Your task to perform on an android device: Go to internet settings Image 0: 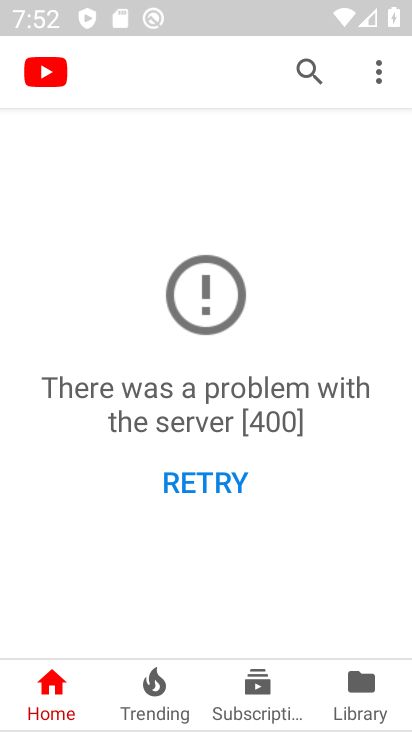
Step 0: press back button
Your task to perform on an android device: Go to internet settings Image 1: 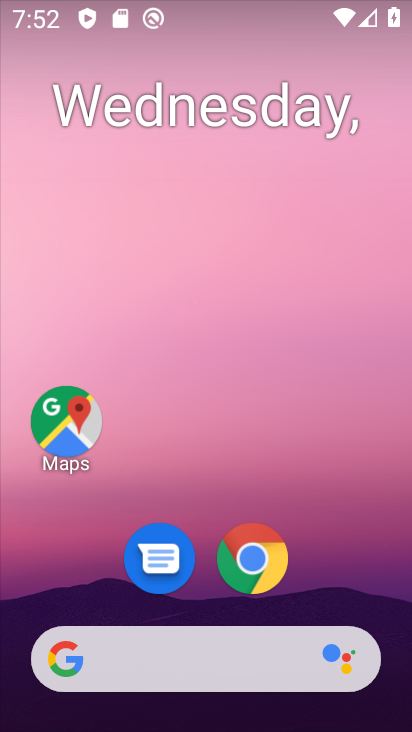
Step 1: drag from (231, 685) to (280, 219)
Your task to perform on an android device: Go to internet settings Image 2: 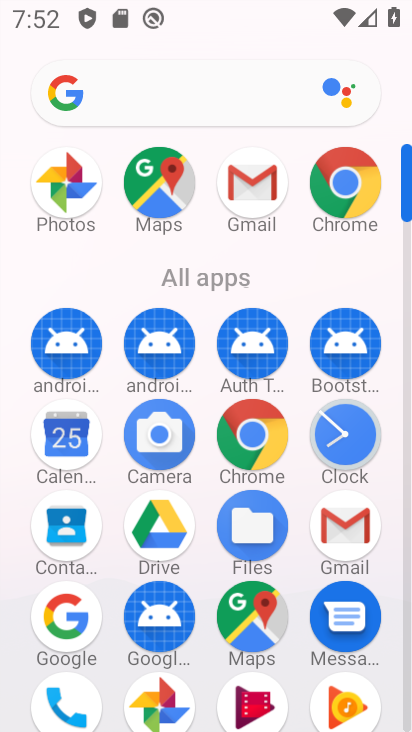
Step 2: drag from (173, 632) to (299, 121)
Your task to perform on an android device: Go to internet settings Image 3: 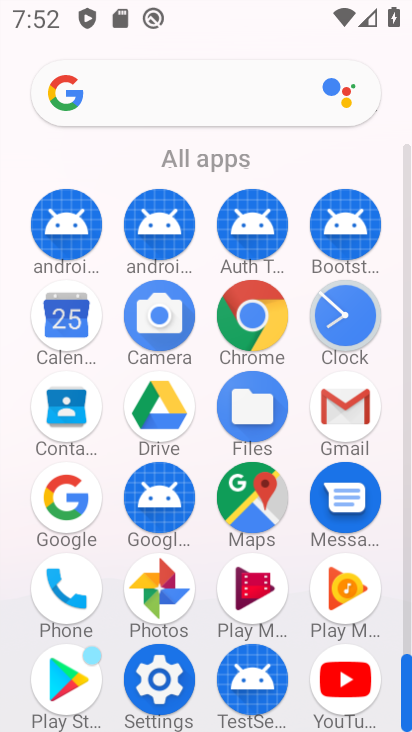
Step 3: click (172, 669)
Your task to perform on an android device: Go to internet settings Image 4: 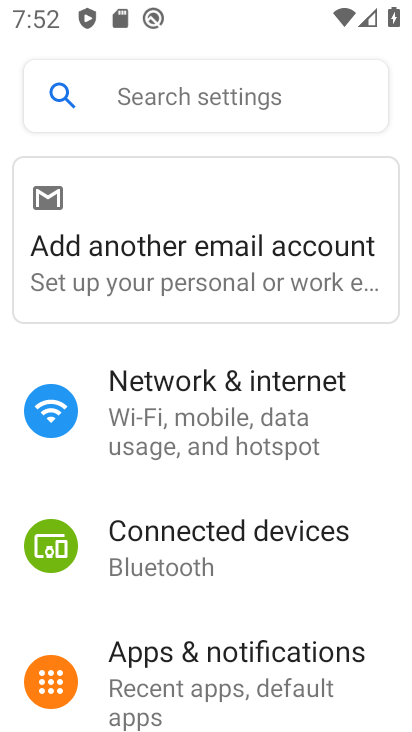
Step 4: click (277, 417)
Your task to perform on an android device: Go to internet settings Image 5: 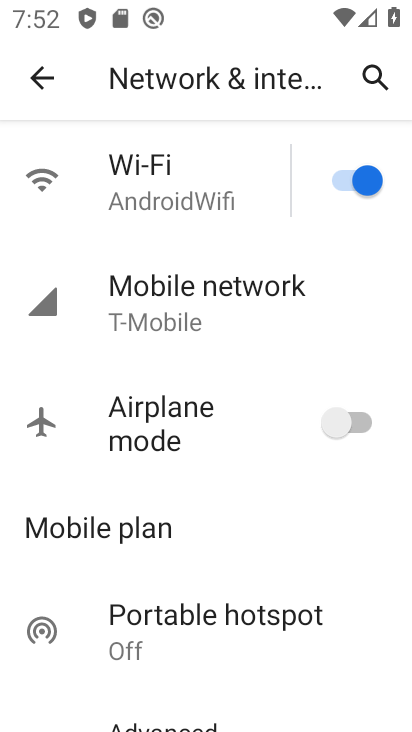
Step 5: click (256, 293)
Your task to perform on an android device: Go to internet settings Image 6: 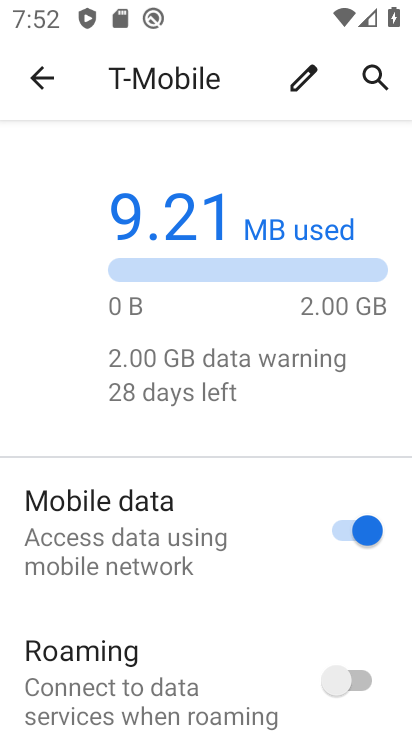
Step 6: task complete